Your task to perform on an android device: Open CNN.com Image 0: 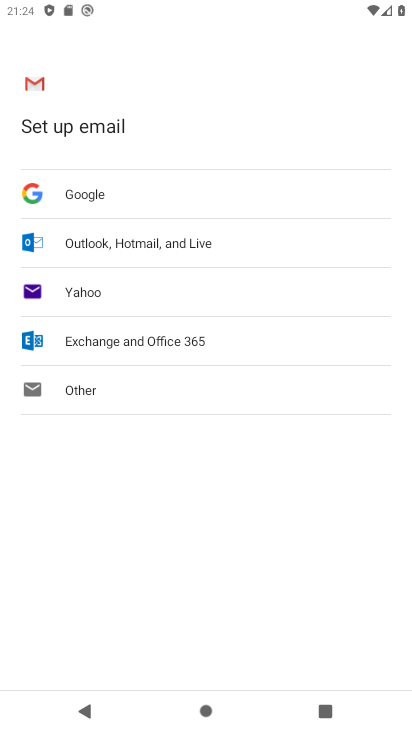
Step 0: press back button
Your task to perform on an android device: Open CNN.com Image 1: 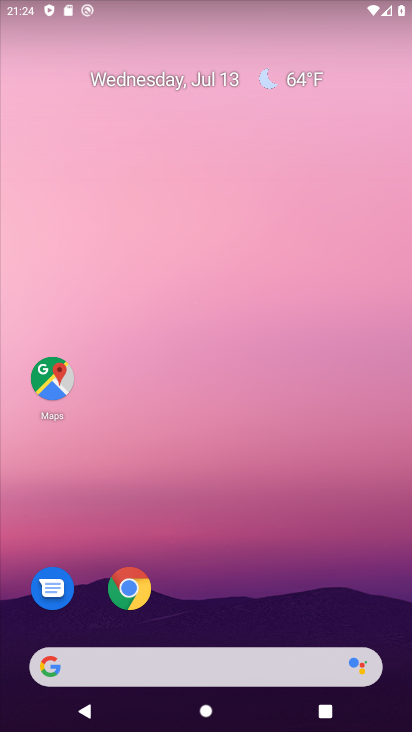
Step 1: click (115, 592)
Your task to perform on an android device: Open CNN.com Image 2: 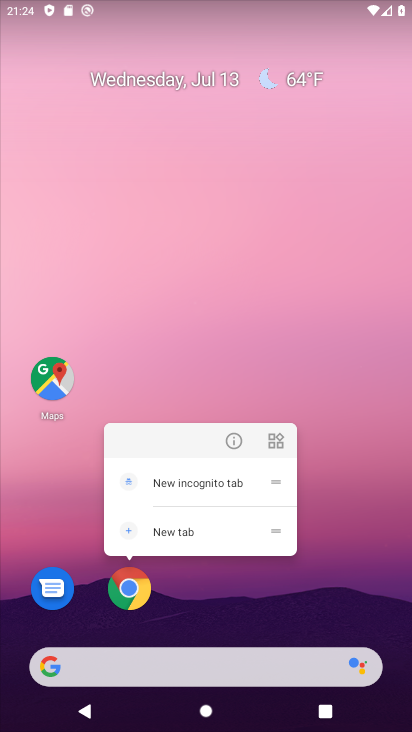
Step 2: click (134, 591)
Your task to perform on an android device: Open CNN.com Image 3: 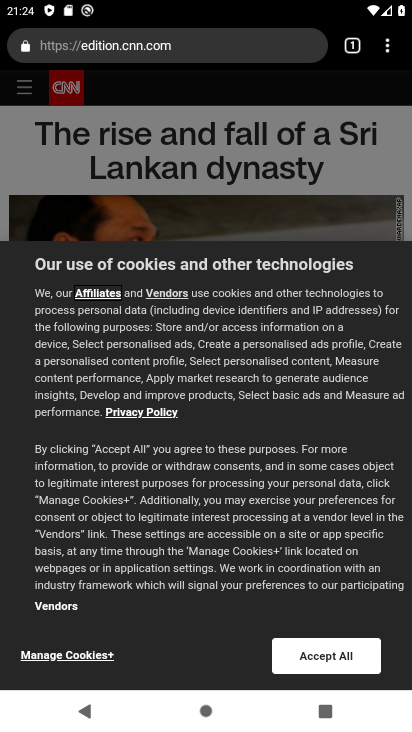
Step 3: click (134, 589)
Your task to perform on an android device: Open CNN.com Image 4: 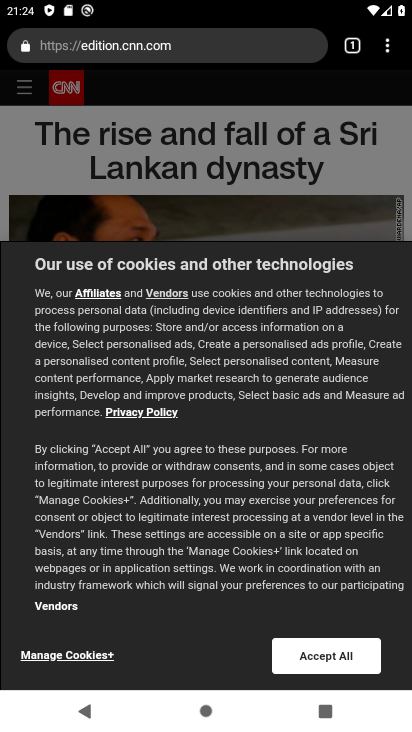
Step 4: task complete